Your task to perform on an android device: Open Maps and search for coffee Image 0: 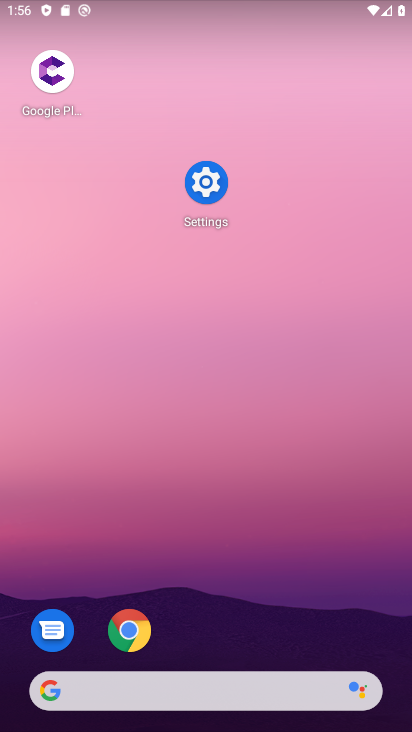
Step 0: drag from (231, 628) to (240, 217)
Your task to perform on an android device: Open Maps and search for coffee Image 1: 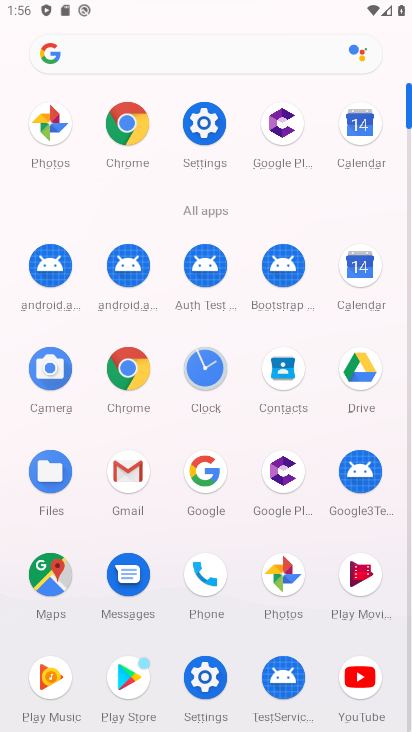
Step 1: click (44, 561)
Your task to perform on an android device: Open Maps and search for coffee Image 2: 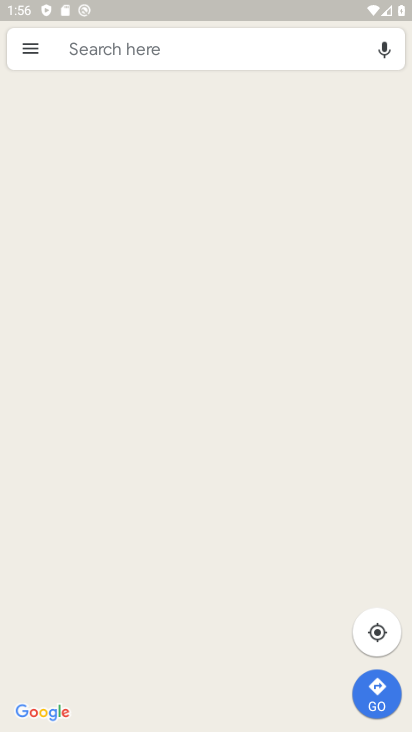
Step 2: click (181, 62)
Your task to perform on an android device: Open Maps and search for coffee Image 3: 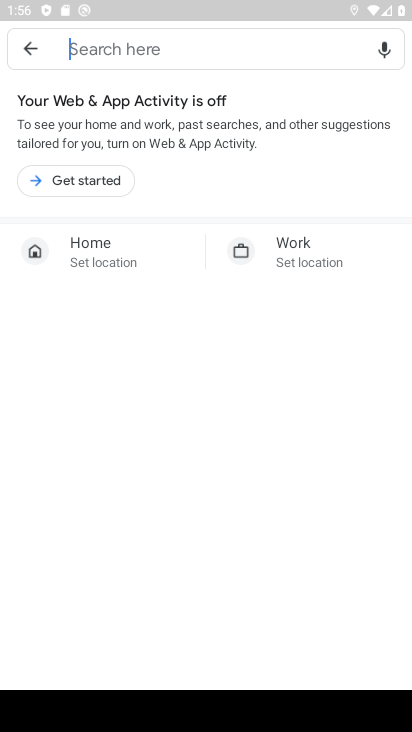
Step 3: type "coffee"
Your task to perform on an android device: Open Maps and search for coffee Image 4: 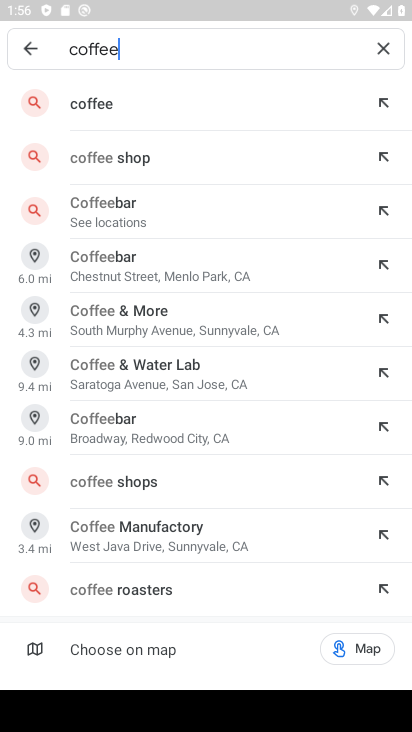
Step 4: click (149, 100)
Your task to perform on an android device: Open Maps and search for coffee Image 5: 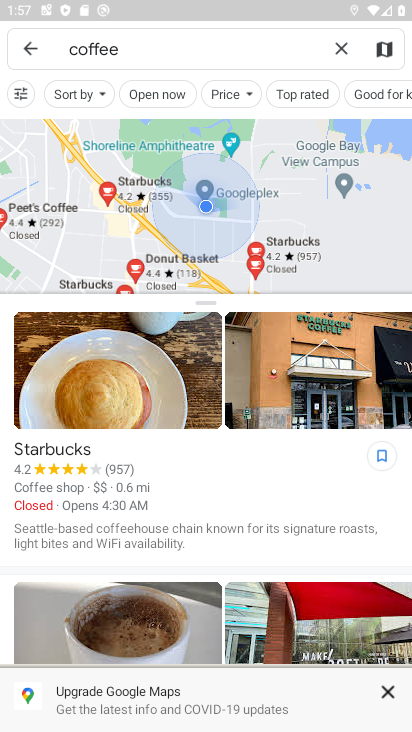
Step 5: task complete